Your task to perform on an android device: turn off translation in the chrome app Image 0: 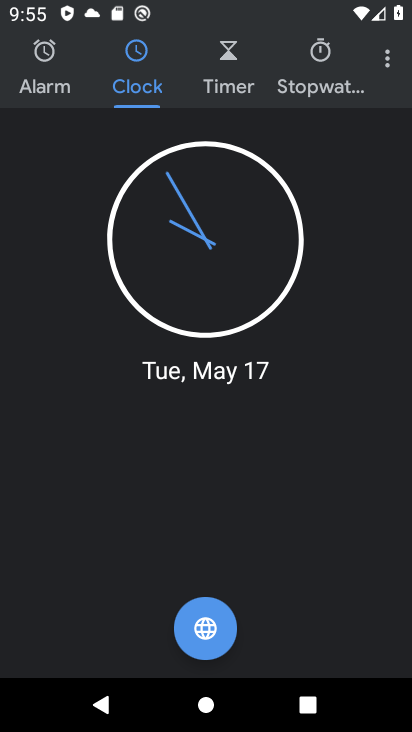
Step 0: press home button
Your task to perform on an android device: turn off translation in the chrome app Image 1: 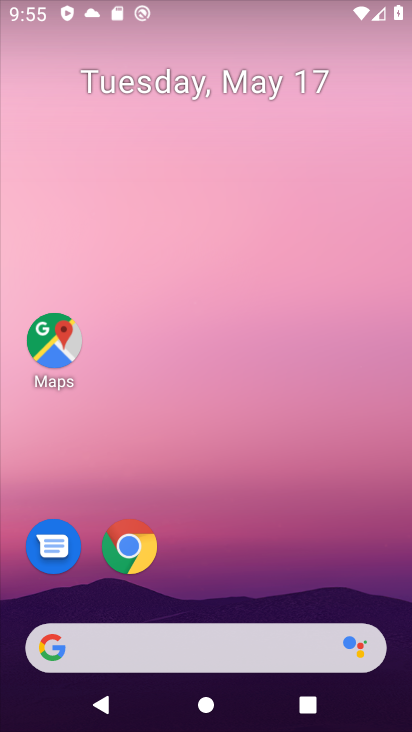
Step 1: drag from (300, 550) to (260, 195)
Your task to perform on an android device: turn off translation in the chrome app Image 2: 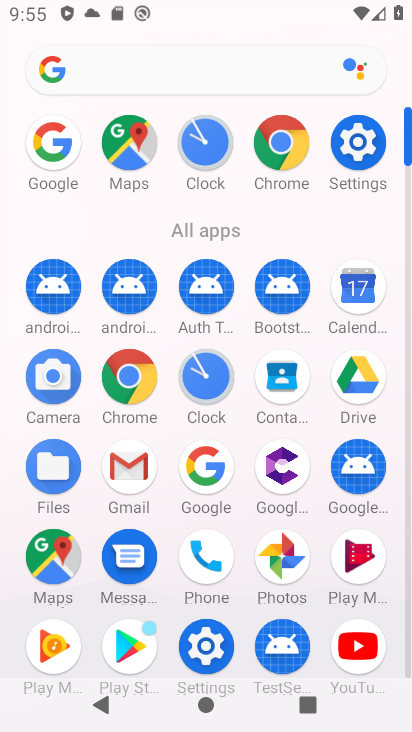
Step 2: click (285, 148)
Your task to perform on an android device: turn off translation in the chrome app Image 3: 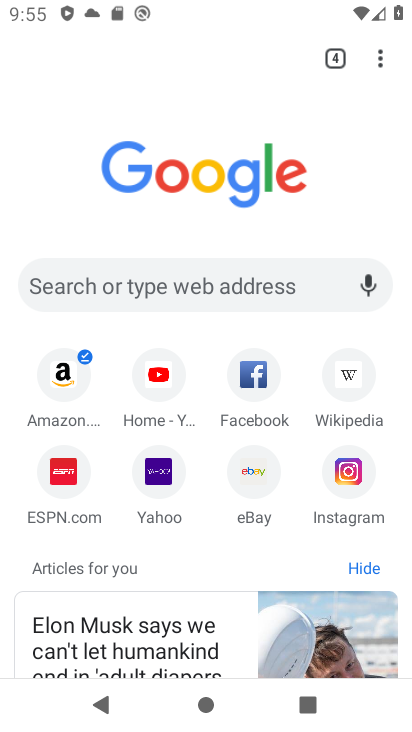
Step 3: click (368, 57)
Your task to perform on an android device: turn off translation in the chrome app Image 4: 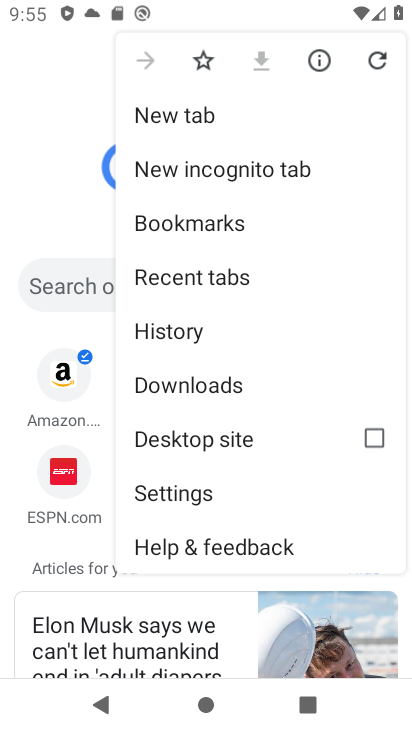
Step 4: click (211, 484)
Your task to perform on an android device: turn off translation in the chrome app Image 5: 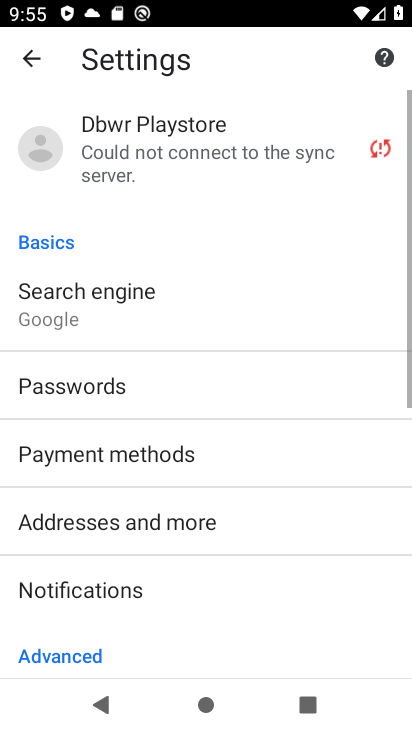
Step 5: drag from (180, 578) to (231, 190)
Your task to perform on an android device: turn off translation in the chrome app Image 6: 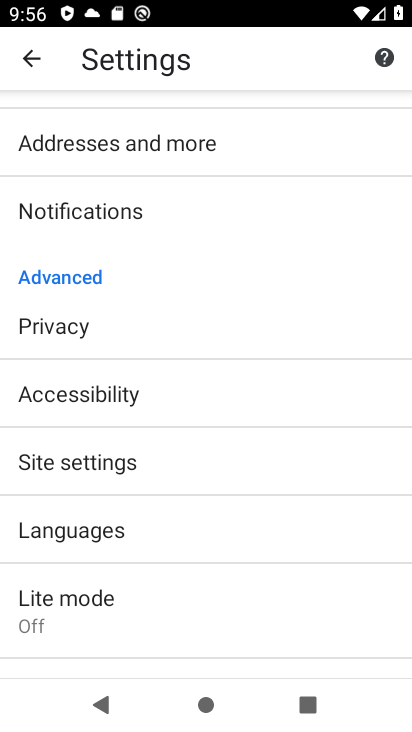
Step 6: drag from (173, 629) to (196, 491)
Your task to perform on an android device: turn off translation in the chrome app Image 7: 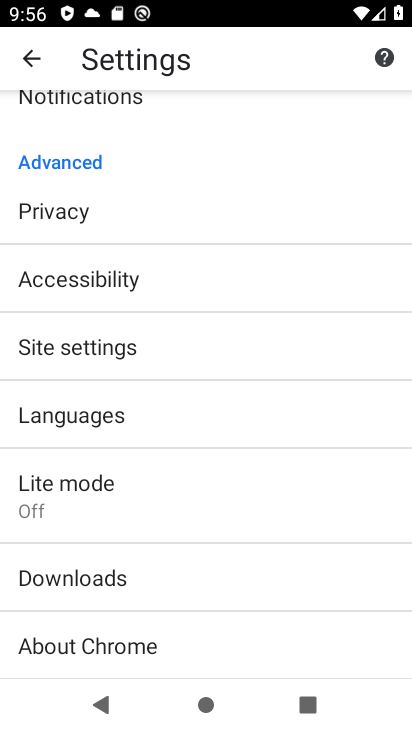
Step 7: click (169, 484)
Your task to perform on an android device: turn off translation in the chrome app Image 8: 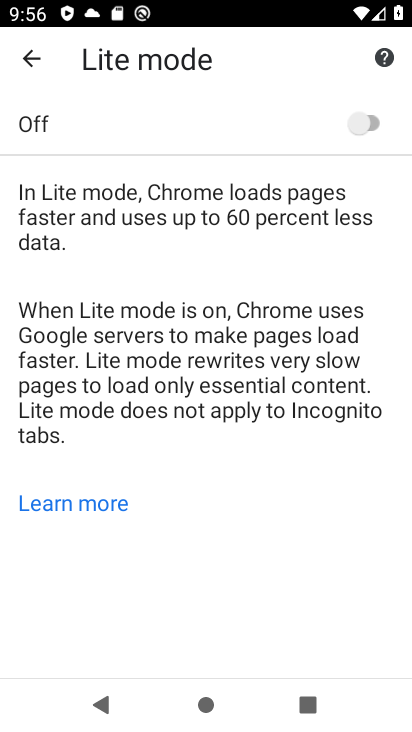
Step 8: click (14, 50)
Your task to perform on an android device: turn off translation in the chrome app Image 9: 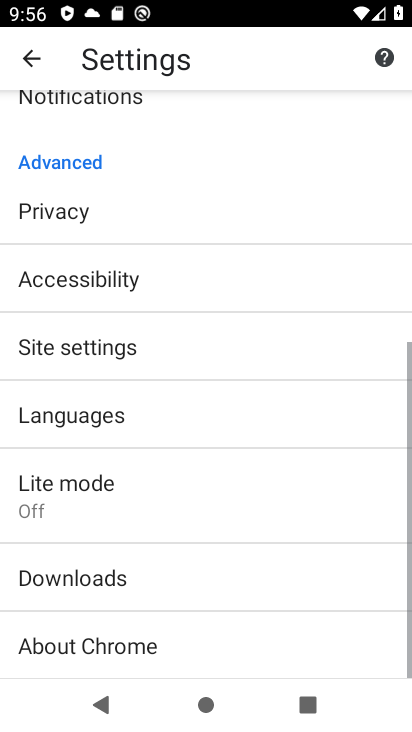
Step 9: click (127, 423)
Your task to perform on an android device: turn off translation in the chrome app Image 10: 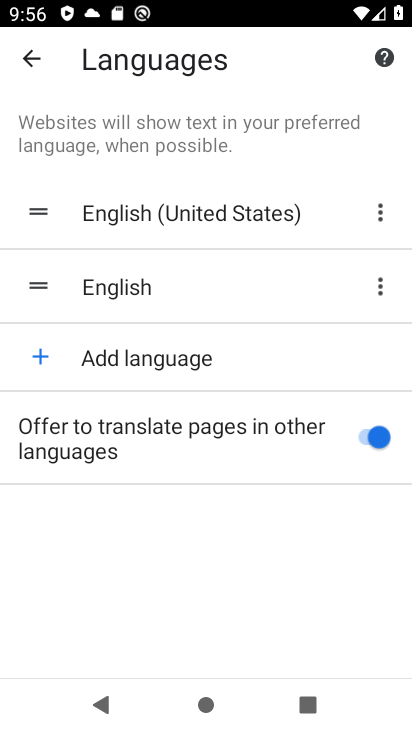
Step 10: task complete